Your task to perform on an android device: Go to battery settings Image 0: 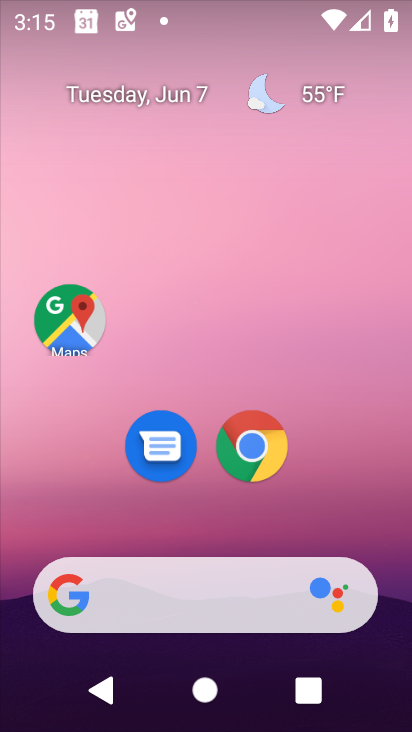
Step 0: drag from (193, 485) to (194, 133)
Your task to perform on an android device: Go to battery settings Image 1: 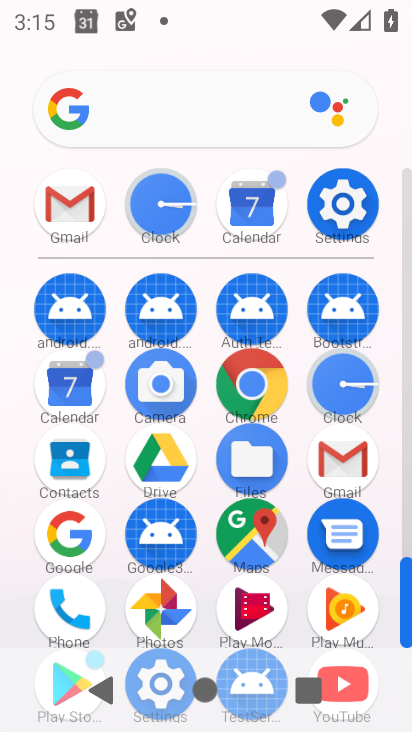
Step 1: click (327, 223)
Your task to perform on an android device: Go to battery settings Image 2: 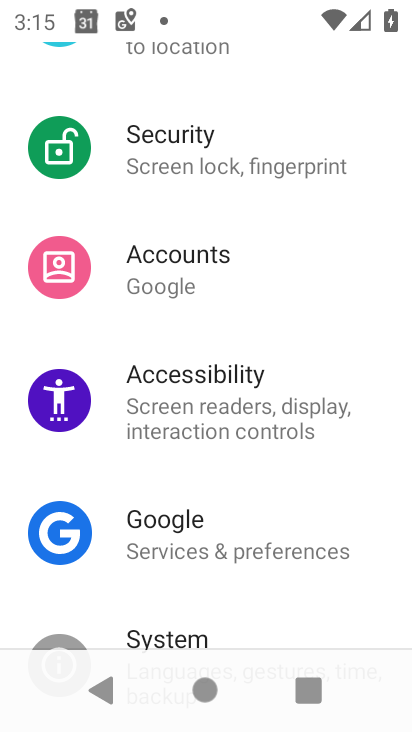
Step 2: drag from (258, 236) to (249, 663)
Your task to perform on an android device: Go to battery settings Image 3: 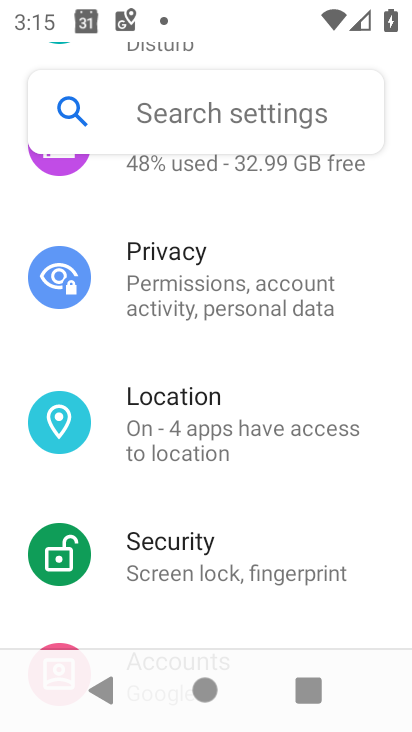
Step 3: drag from (235, 262) to (241, 728)
Your task to perform on an android device: Go to battery settings Image 4: 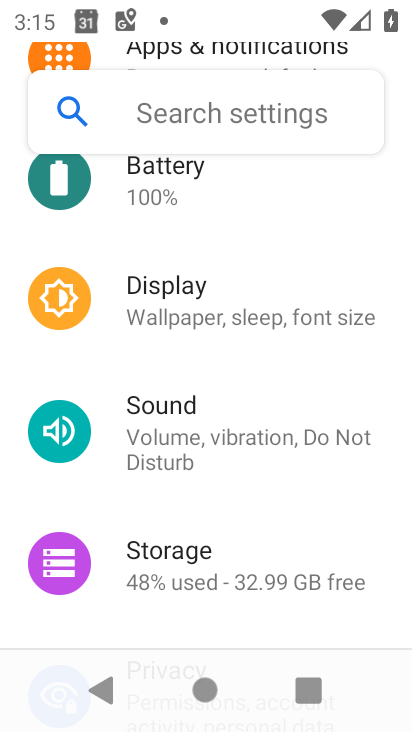
Step 4: click (166, 183)
Your task to perform on an android device: Go to battery settings Image 5: 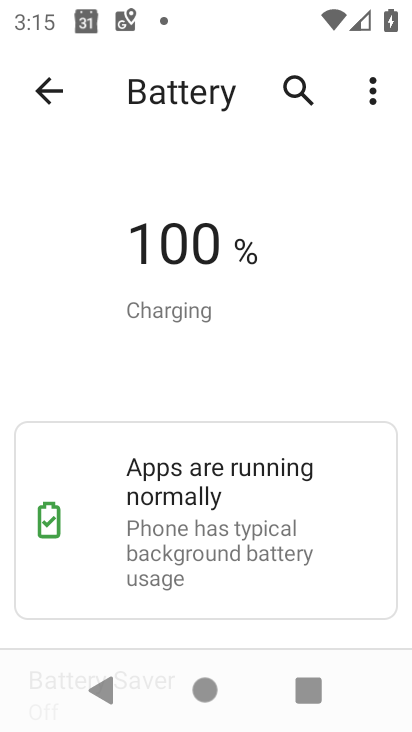
Step 5: task complete